Your task to perform on an android device: Find coffee shops on Maps Image 0: 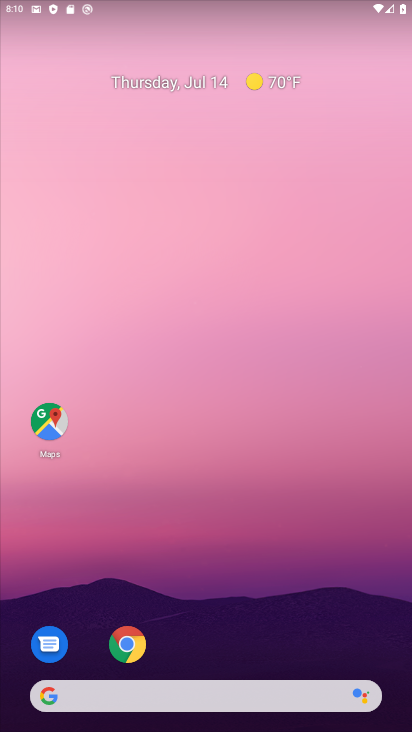
Step 0: drag from (248, 657) to (261, 220)
Your task to perform on an android device: Find coffee shops on Maps Image 1: 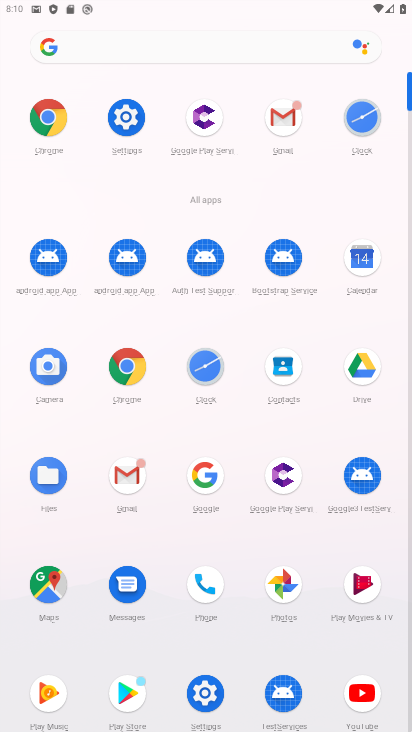
Step 1: click (48, 585)
Your task to perform on an android device: Find coffee shops on Maps Image 2: 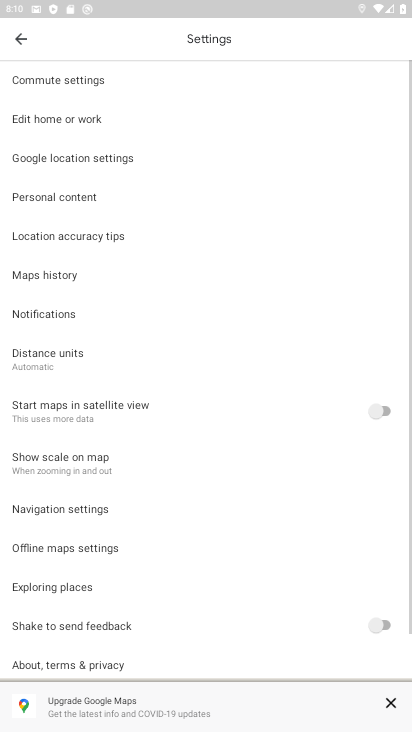
Step 2: click (27, 34)
Your task to perform on an android device: Find coffee shops on Maps Image 3: 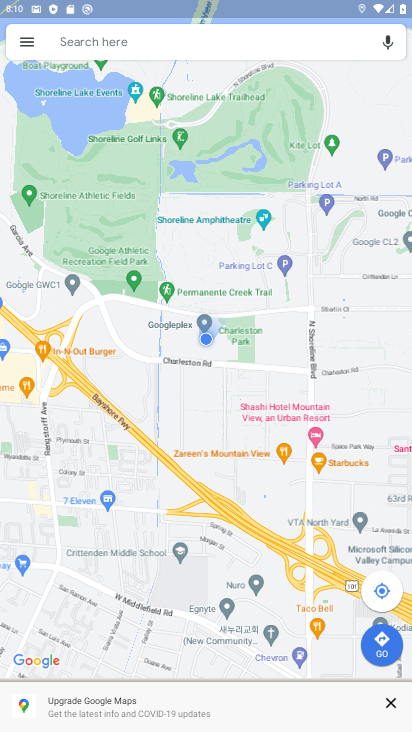
Step 3: click (161, 41)
Your task to perform on an android device: Find coffee shops on Maps Image 4: 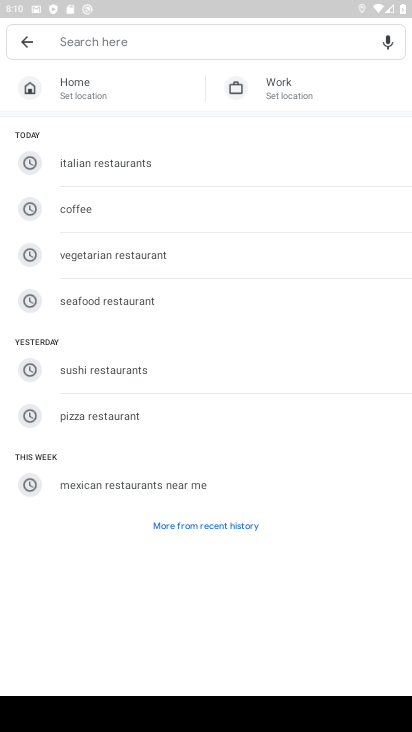
Step 4: click (81, 207)
Your task to perform on an android device: Find coffee shops on Maps Image 5: 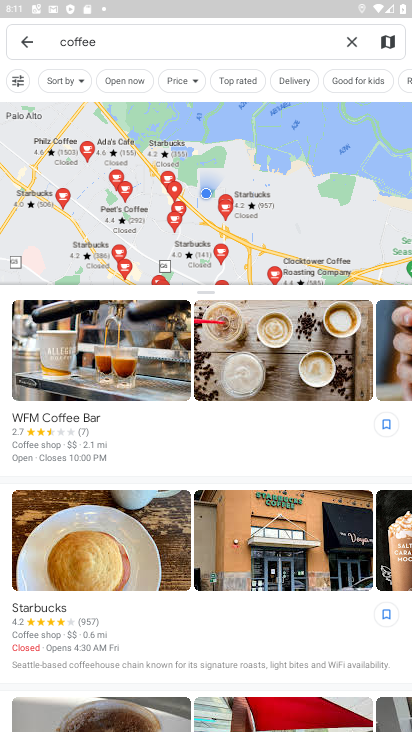
Step 5: task complete